Your task to perform on an android device: turn on javascript in the chrome app Image 0: 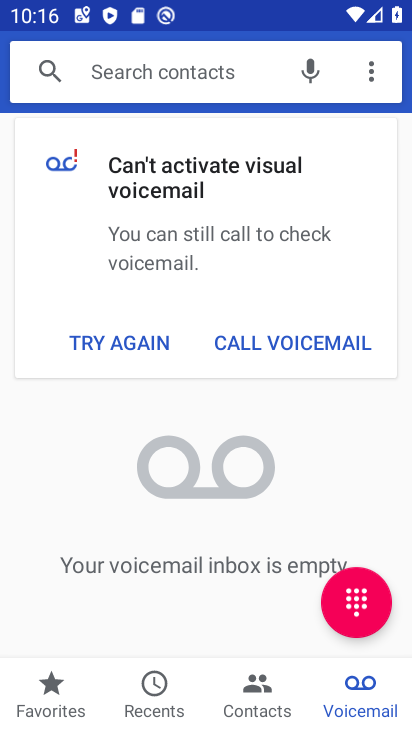
Step 0: press home button
Your task to perform on an android device: turn on javascript in the chrome app Image 1: 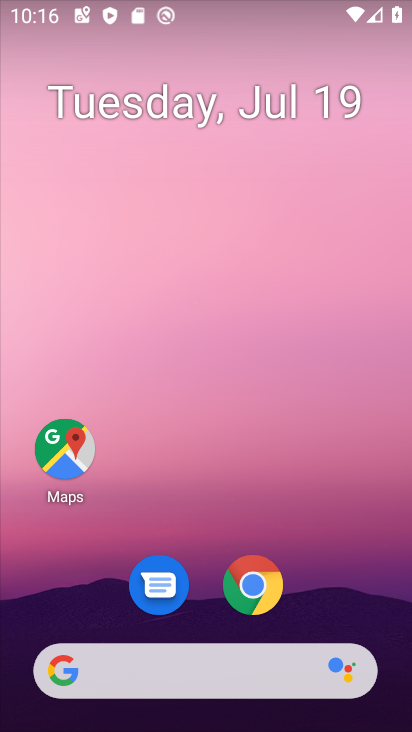
Step 1: click (268, 601)
Your task to perform on an android device: turn on javascript in the chrome app Image 2: 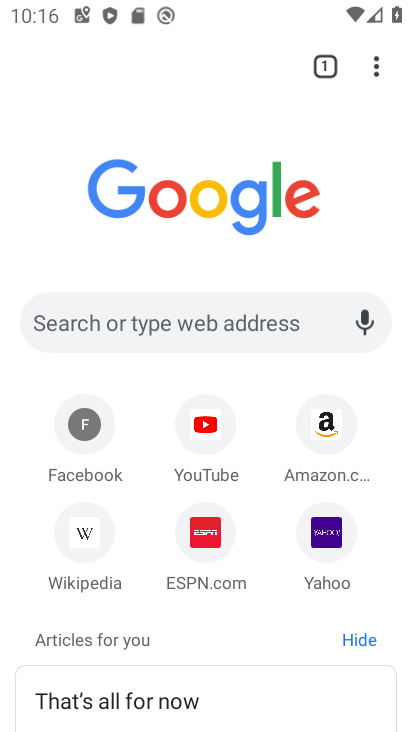
Step 2: click (379, 67)
Your task to perform on an android device: turn on javascript in the chrome app Image 3: 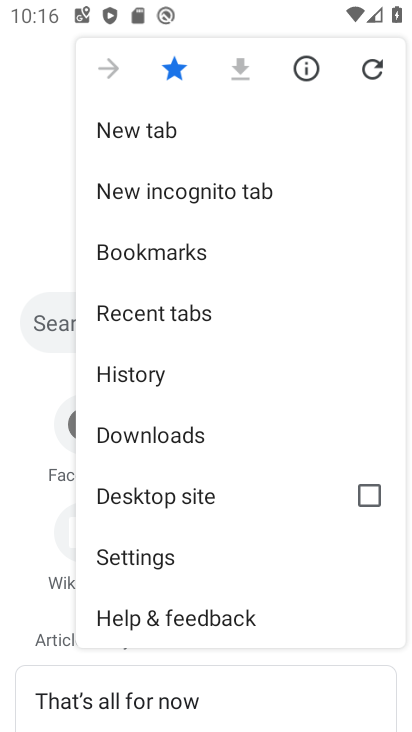
Step 3: drag from (232, 545) to (272, 319)
Your task to perform on an android device: turn on javascript in the chrome app Image 4: 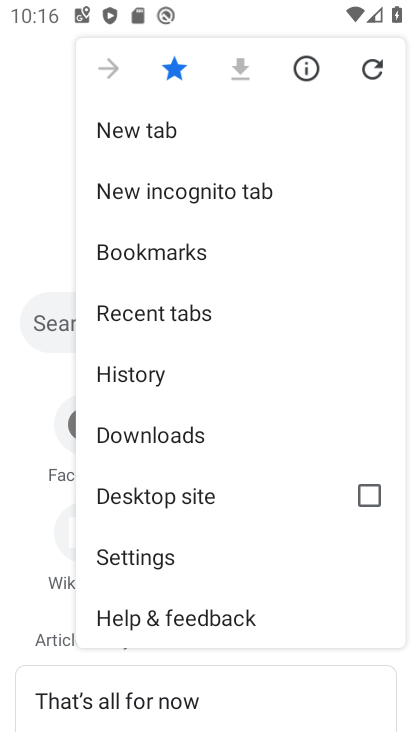
Step 4: click (167, 558)
Your task to perform on an android device: turn on javascript in the chrome app Image 5: 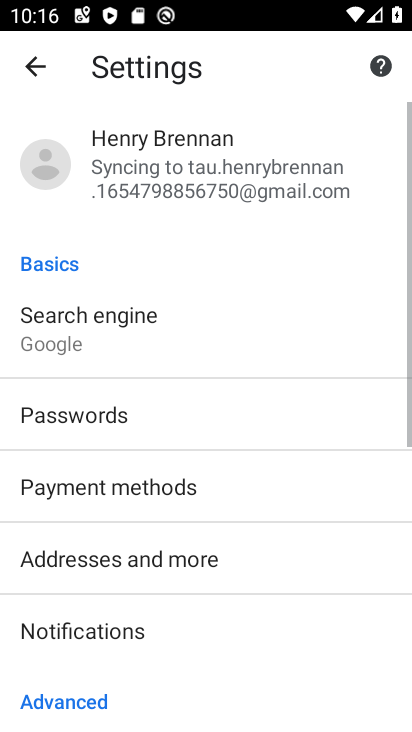
Step 5: drag from (260, 591) to (314, 316)
Your task to perform on an android device: turn on javascript in the chrome app Image 6: 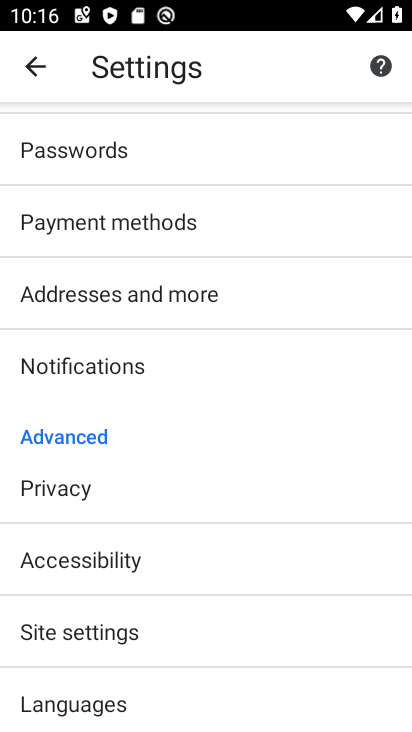
Step 6: click (102, 634)
Your task to perform on an android device: turn on javascript in the chrome app Image 7: 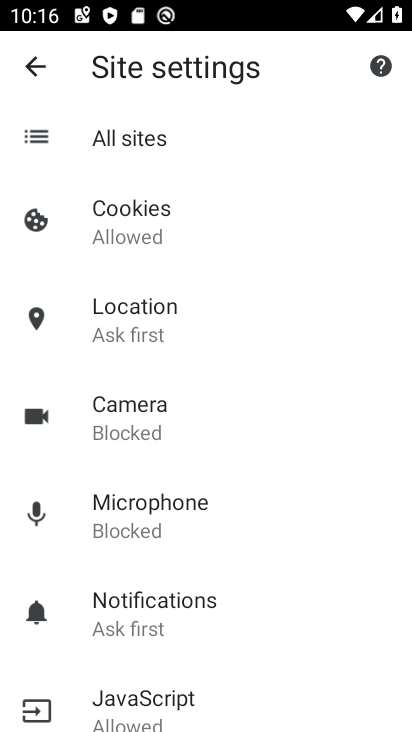
Step 7: drag from (222, 552) to (229, 468)
Your task to perform on an android device: turn on javascript in the chrome app Image 8: 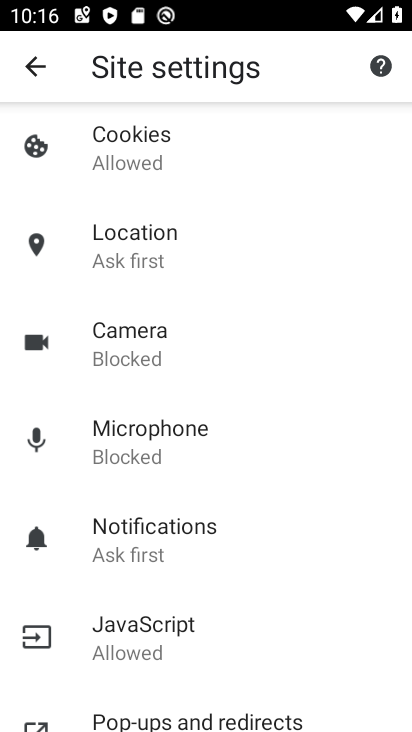
Step 8: click (170, 635)
Your task to perform on an android device: turn on javascript in the chrome app Image 9: 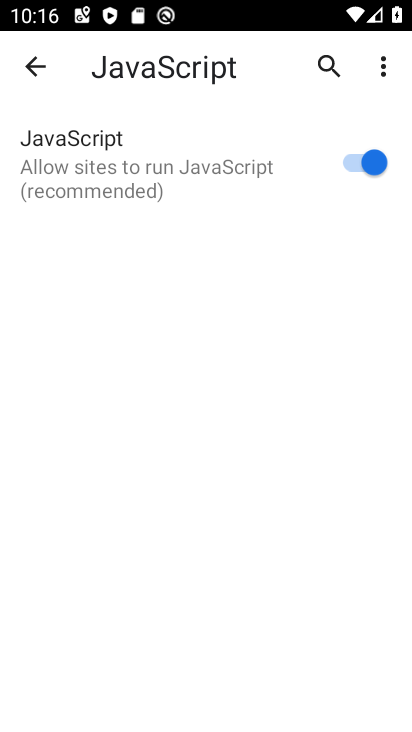
Step 9: task complete